Your task to perform on an android device: turn pop-ups off in chrome Image 0: 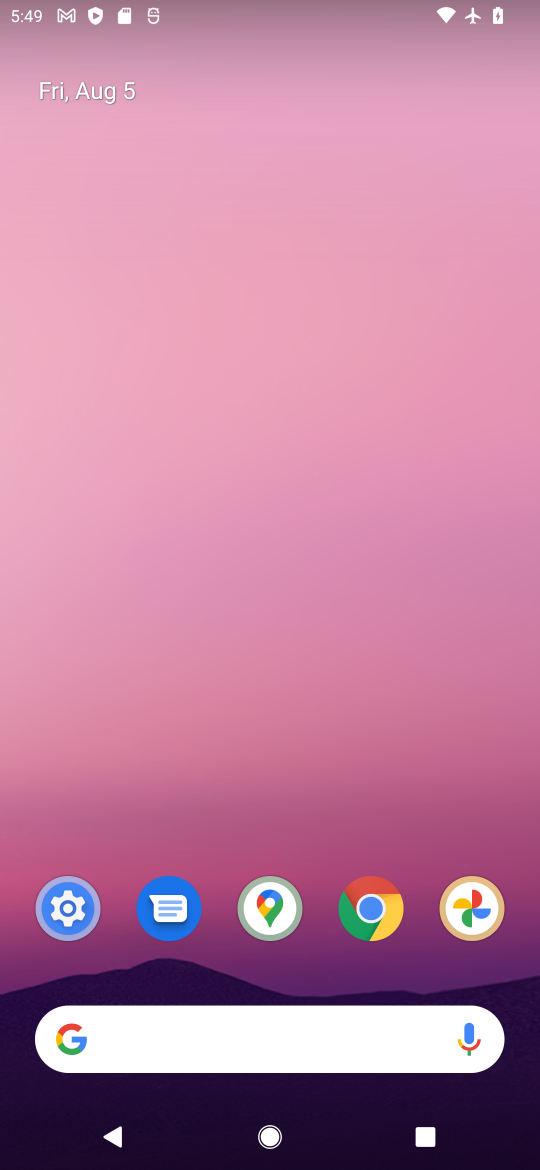
Step 0: click (366, 907)
Your task to perform on an android device: turn pop-ups off in chrome Image 1: 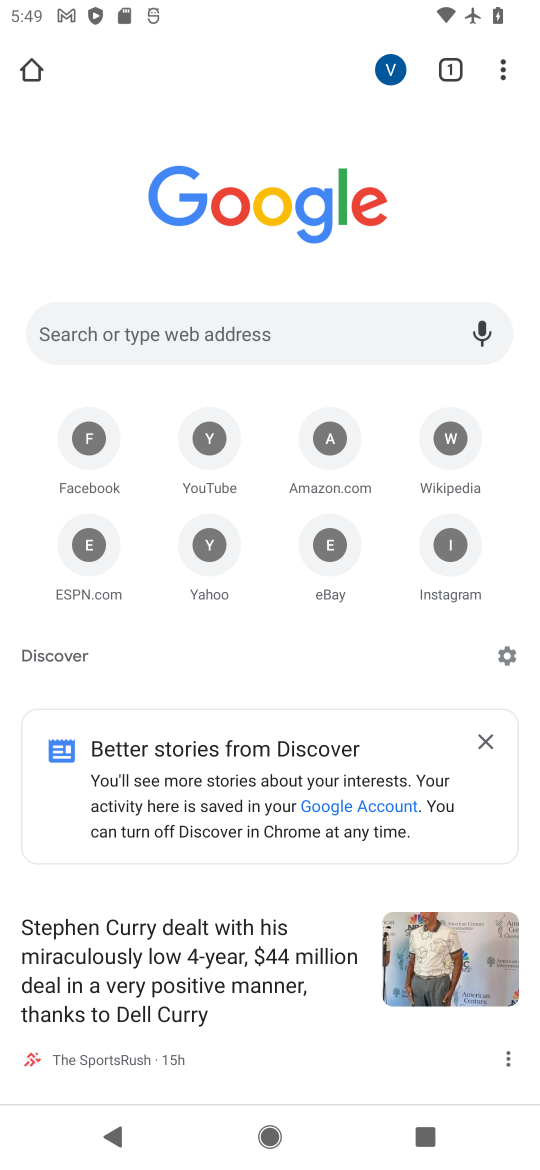
Step 1: click (500, 77)
Your task to perform on an android device: turn pop-ups off in chrome Image 2: 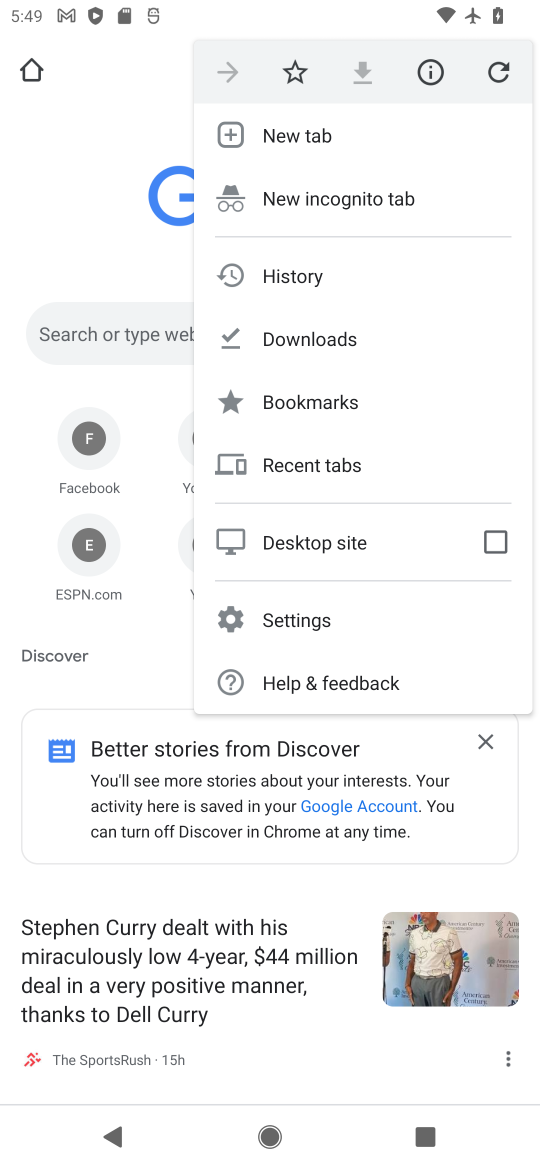
Step 2: click (283, 618)
Your task to perform on an android device: turn pop-ups off in chrome Image 3: 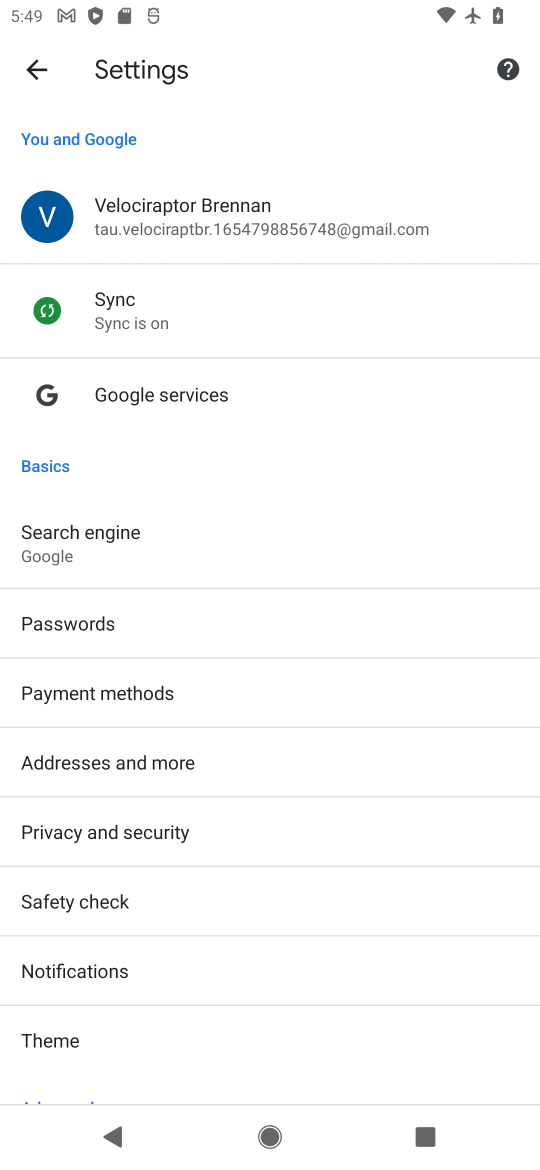
Step 3: drag from (212, 904) to (247, 408)
Your task to perform on an android device: turn pop-ups off in chrome Image 4: 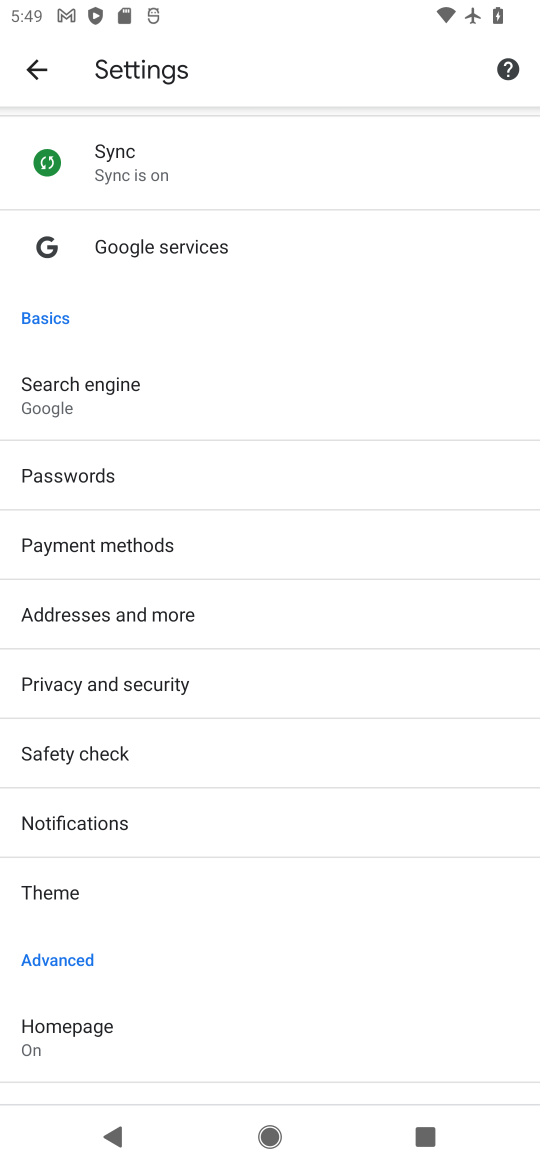
Step 4: drag from (190, 803) to (250, 362)
Your task to perform on an android device: turn pop-ups off in chrome Image 5: 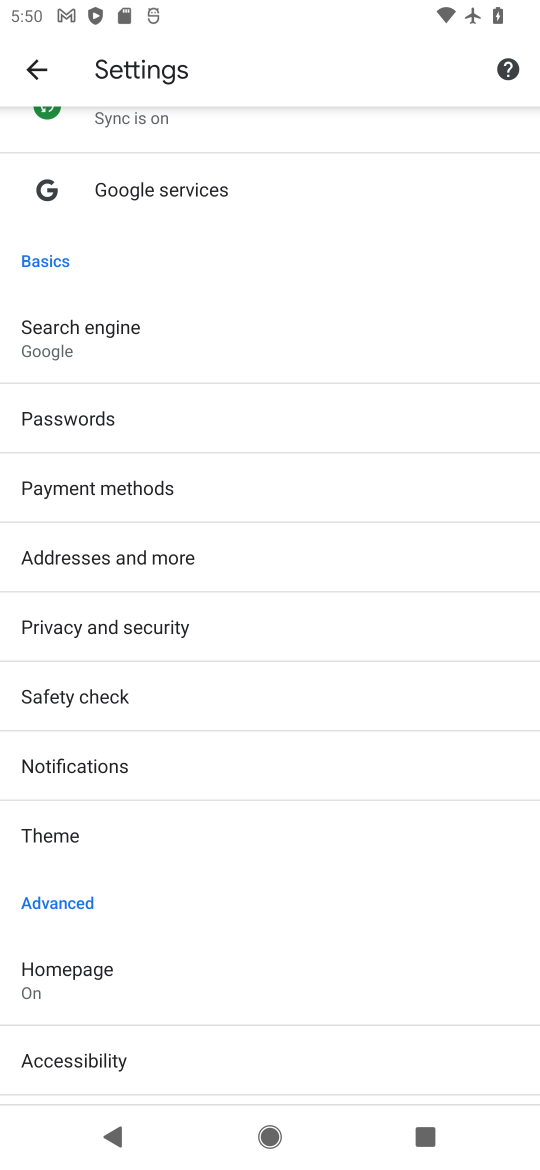
Step 5: drag from (123, 920) to (200, 443)
Your task to perform on an android device: turn pop-ups off in chrome Image 6: 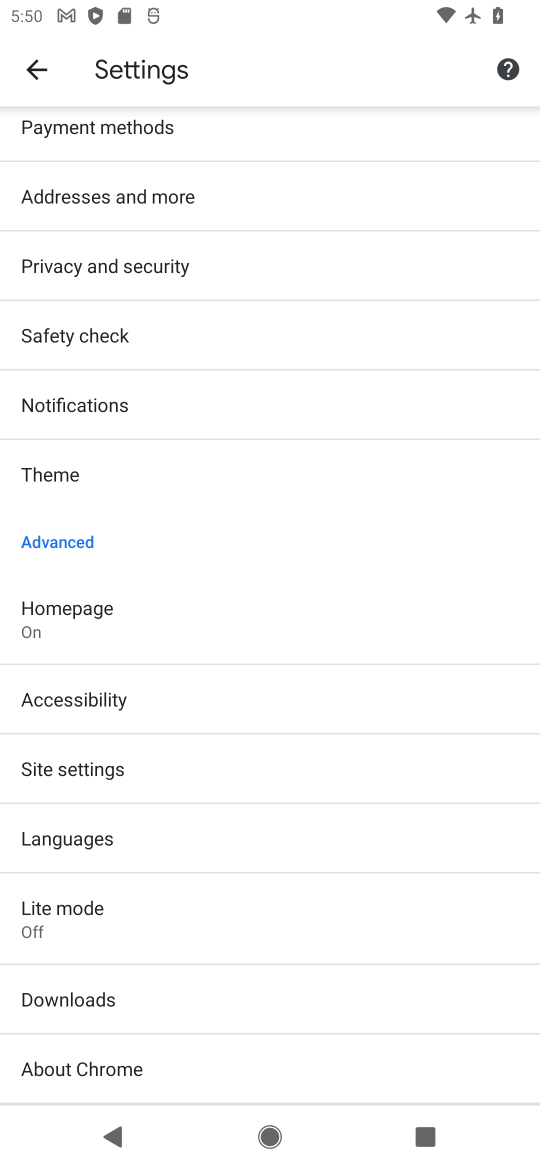
Step 6: click (112, 774)
Your task to perform on an android device: turn pop-ups off in chrome Image 7: 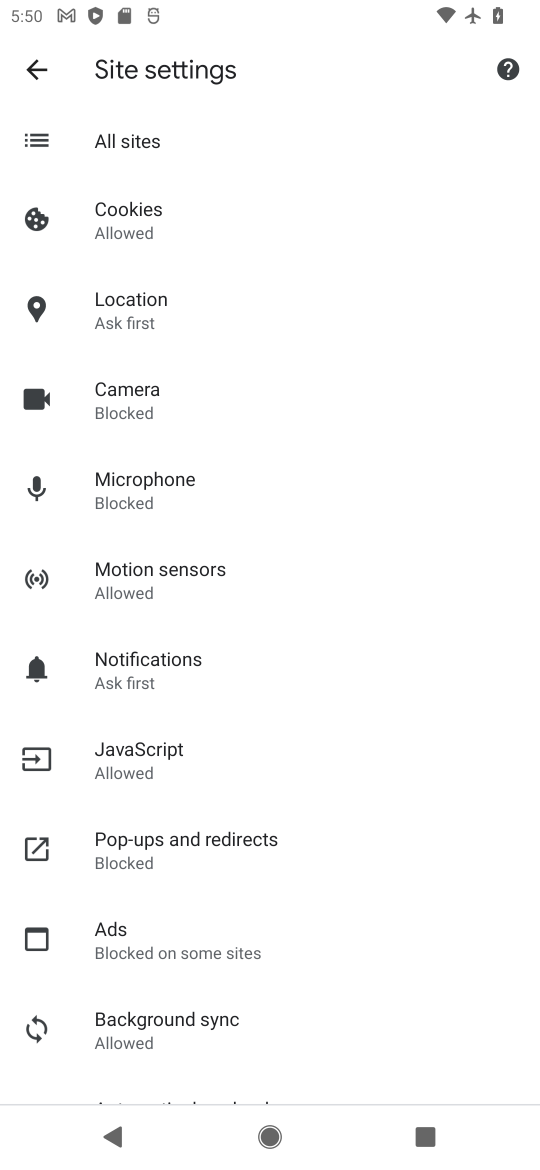
Step 7: click (136, 845)
Your task to perform on an android device: turn pop-ups off in chrome Image 8: 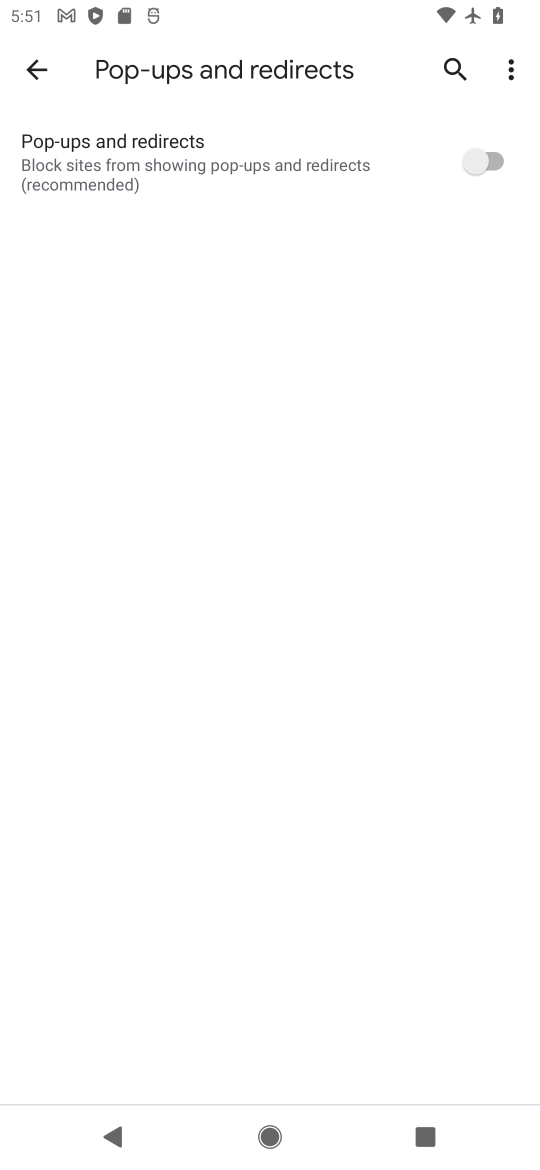
Step 8: task complete